Your task to perform on an android device: toggle notifications settings in the gmail app Image 0: 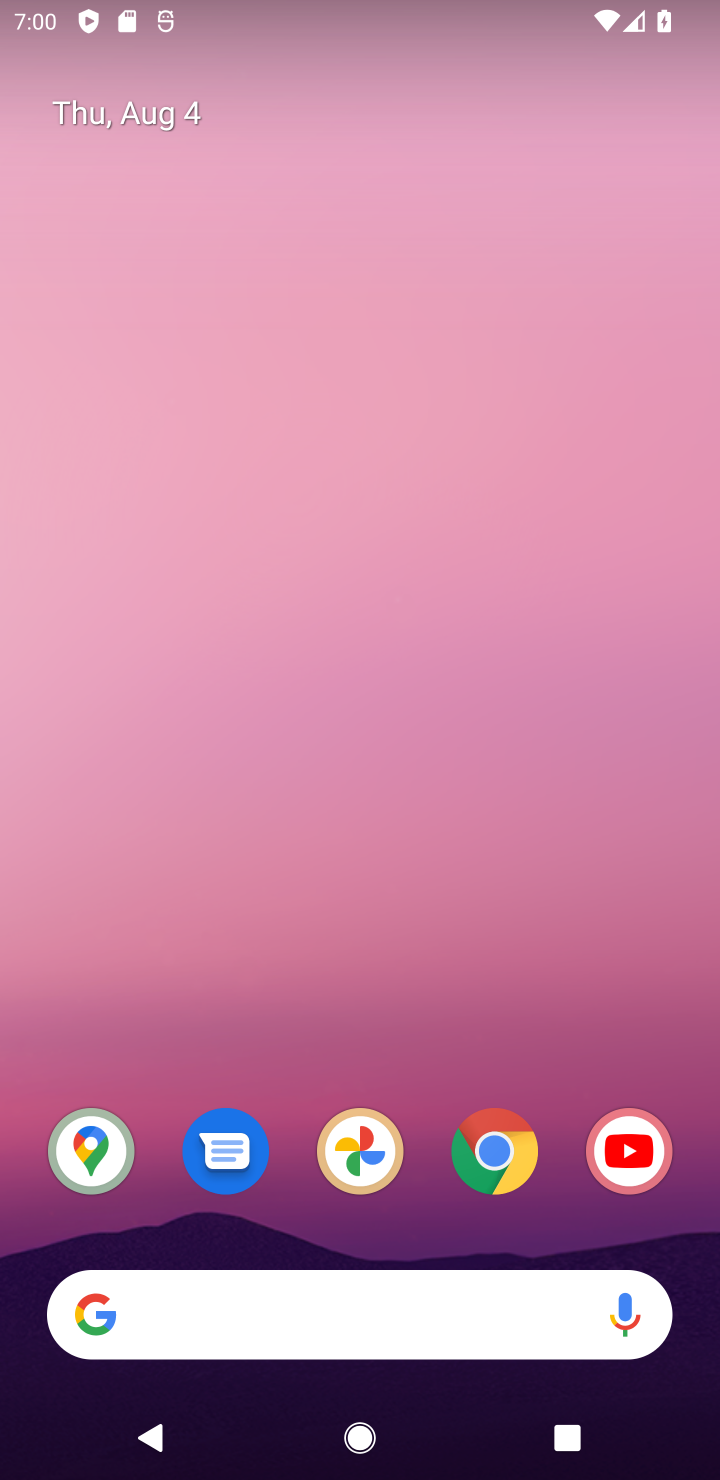
Step 0: drag from (466, 1048) to (472, 142)
Your task to perform on an android device: toggle notifications settings in the gmail app Image 1: 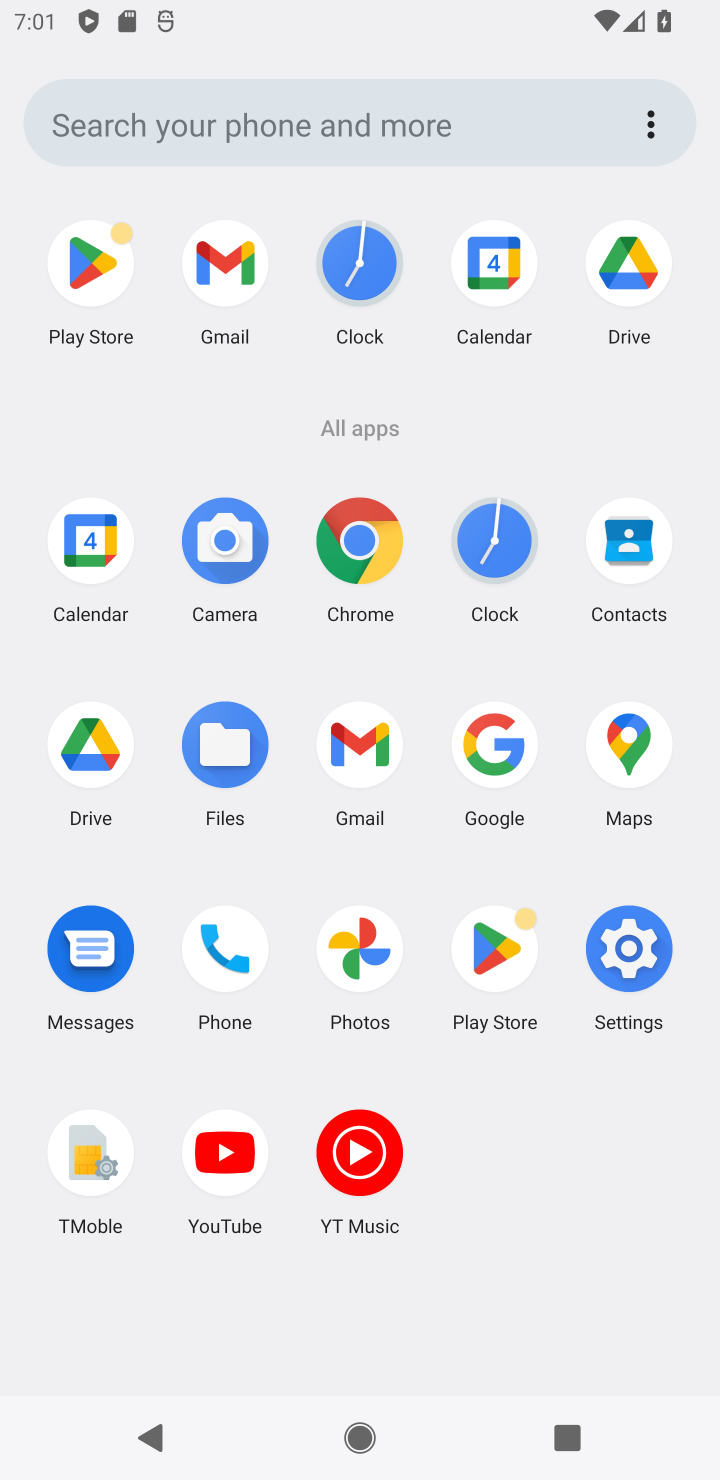
Step 1: click (225, 242)
Your task to perform on an android device: toggle notifications settings in the gmail app Image 2: 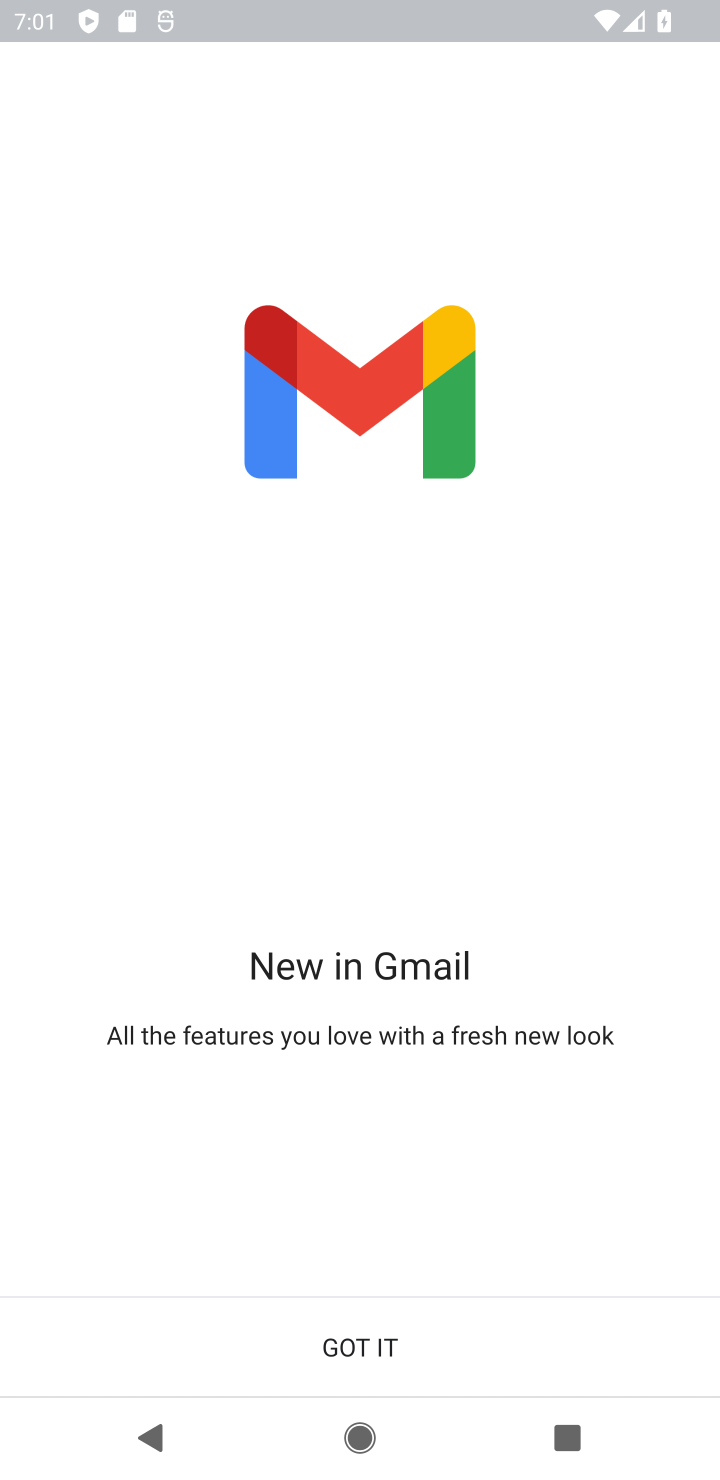
Step 2: click (388, 1340)
Your task to perform on an android device: toggle notifications settings in the gmail app Image 3: 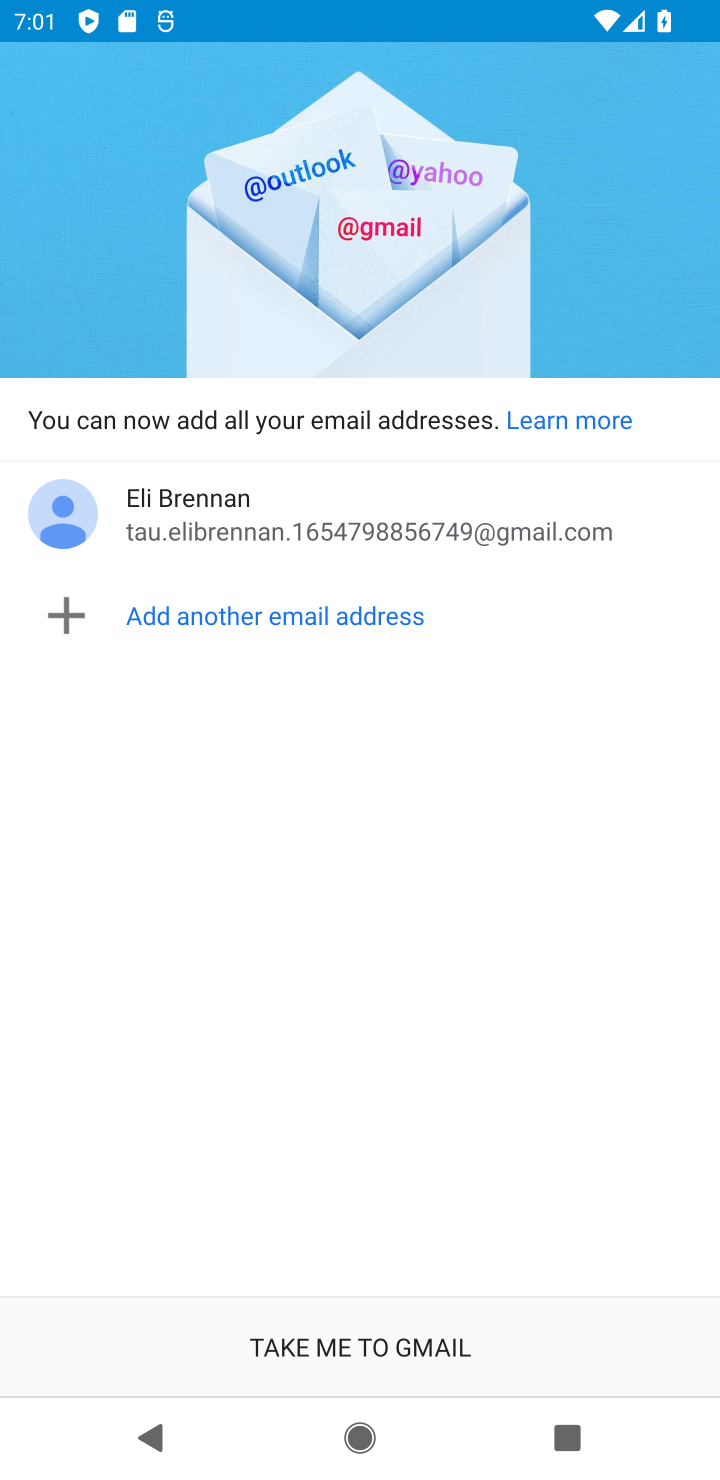
Step 3: click (509, 1337)
Your task to perform on an android device: toggle notifications settings in the gmail app Image 4: 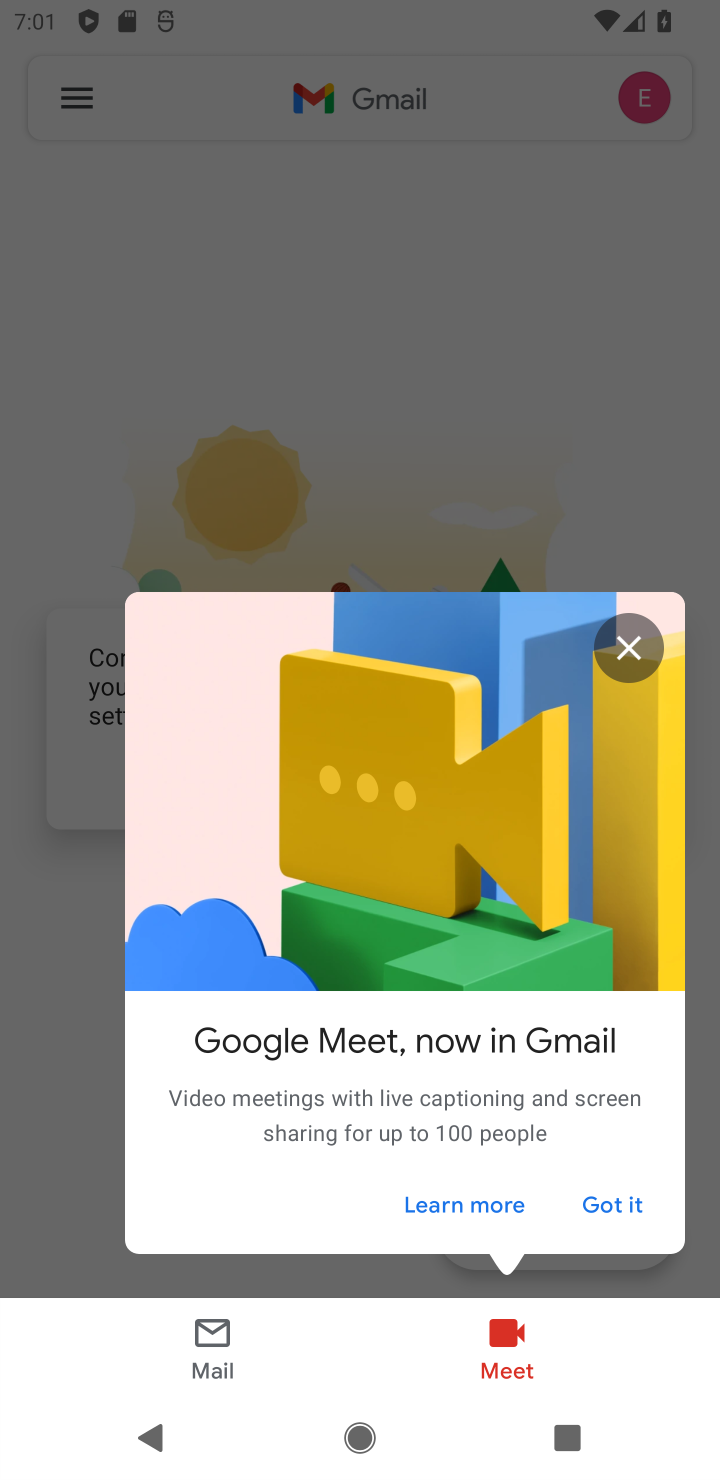
Step 4: click (620, 1198)
Your task to perform on an android device: toggle notifications settings in the gmail app Image 5: 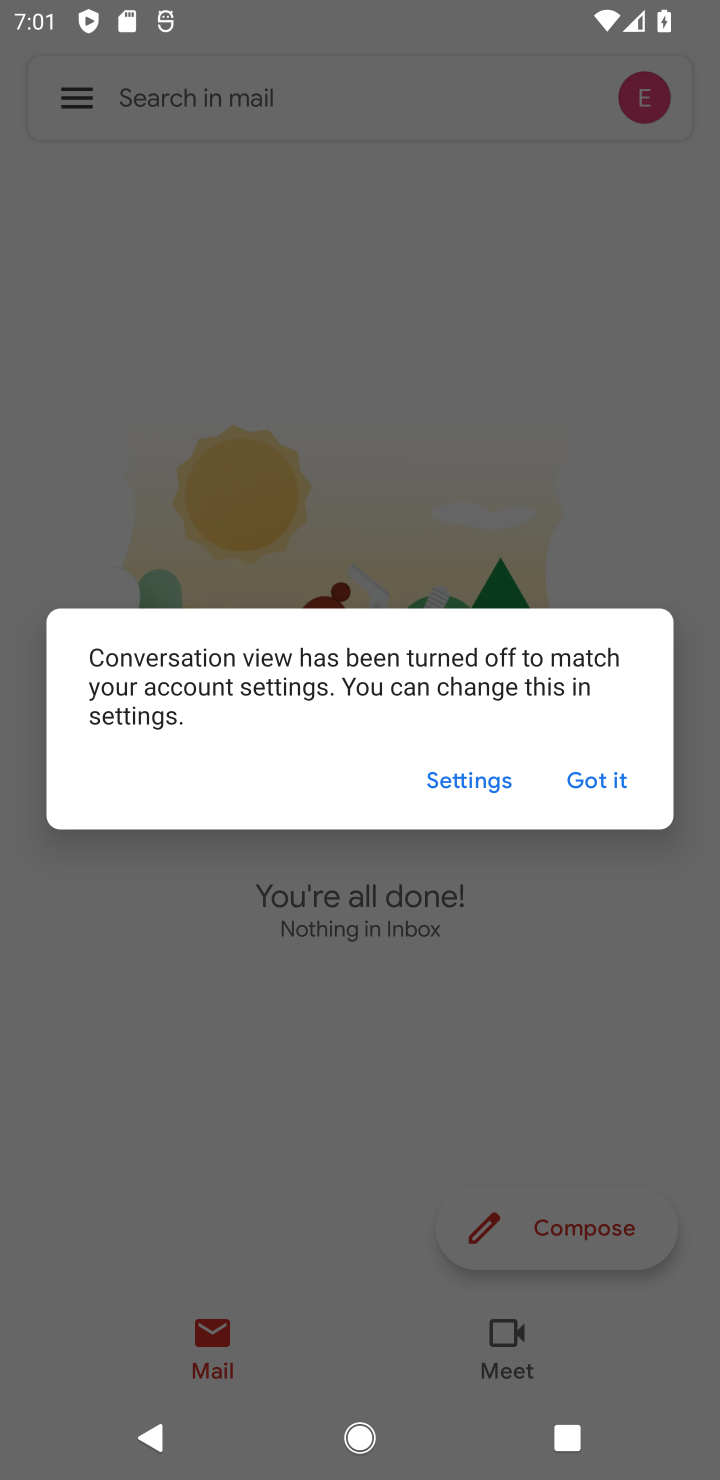
Step 5: click (602, 776)
Your task to perform on an android device: toggle notifications settings in the gmail app Image 6: 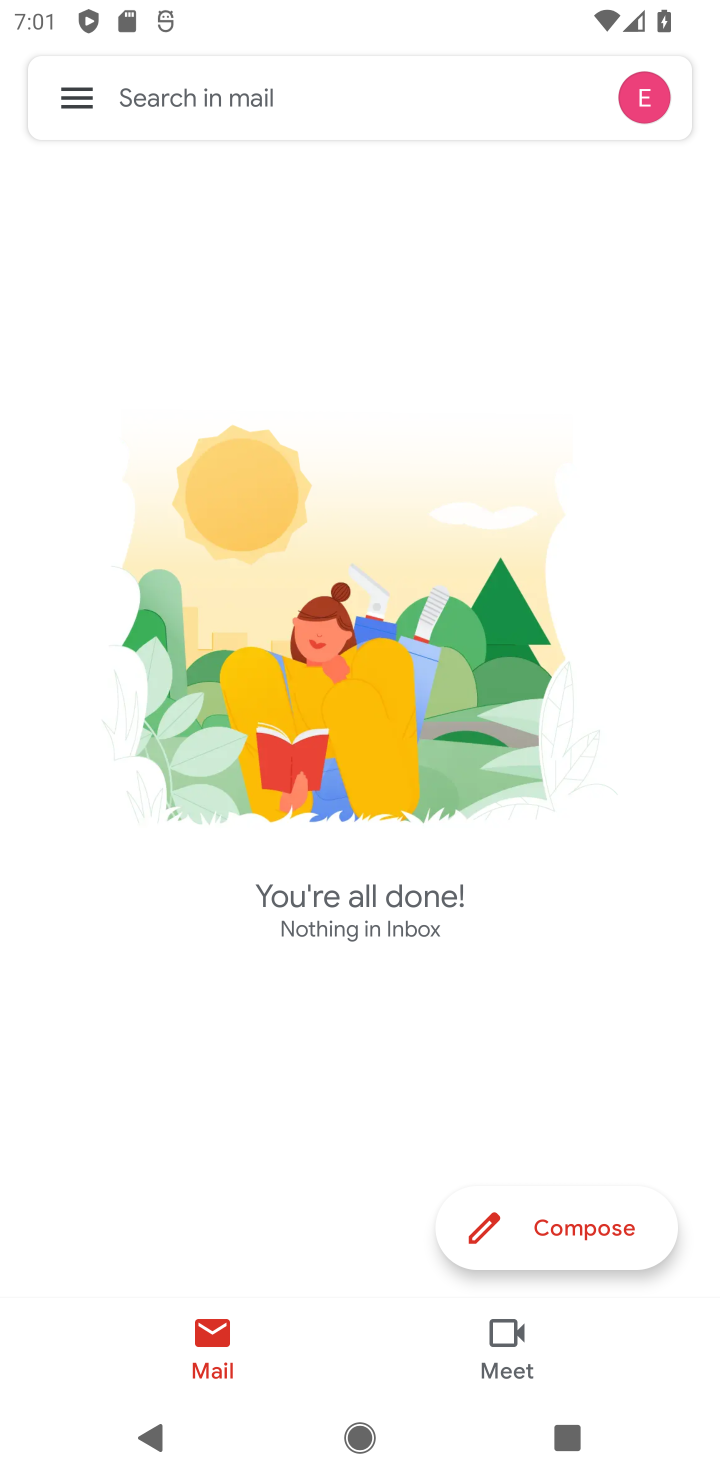
Step 6: click (83, 103)
Your task to perform on an android device: toggle notifications settings in the gmail app Image 7: 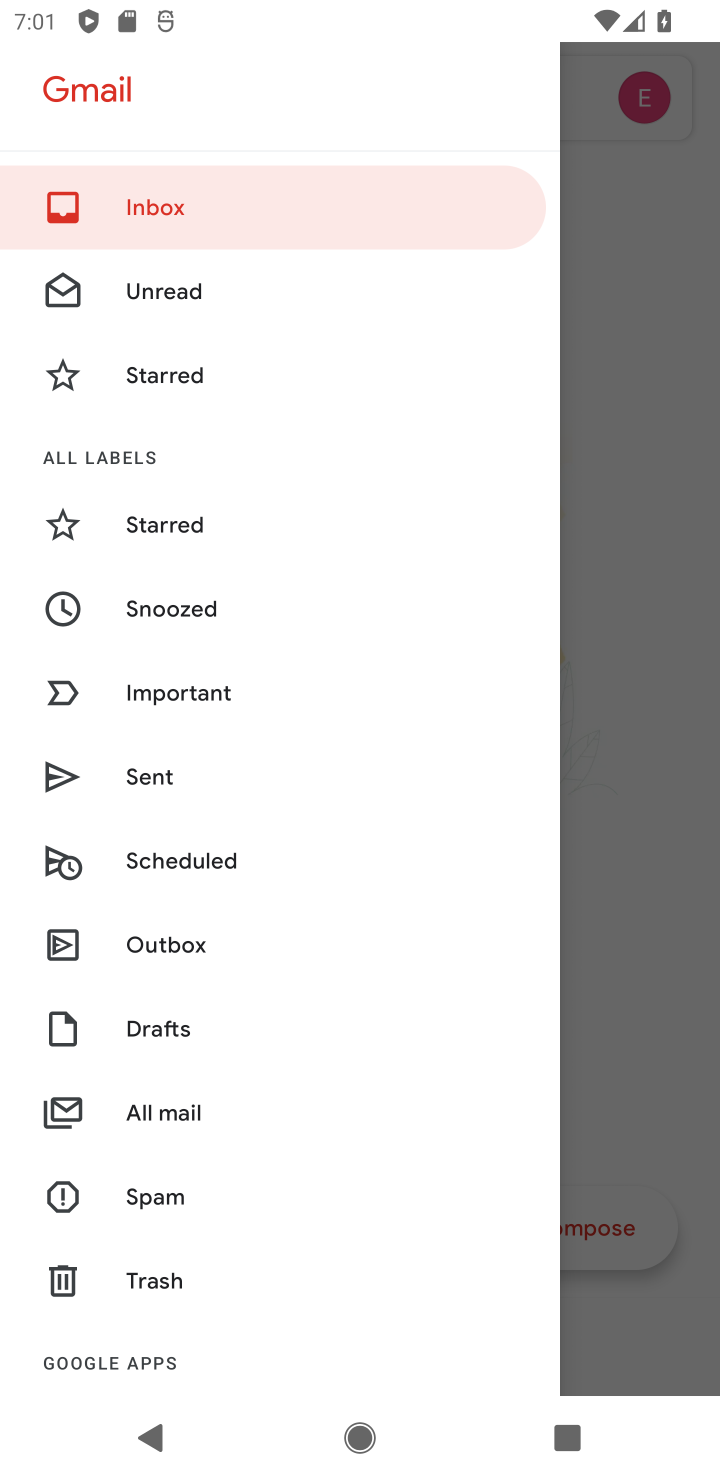
Step 7: drag from (314, 1229) to (290, 310)
Your task to perform on an android device: toggle notifications settings in the gmail app Image 8: 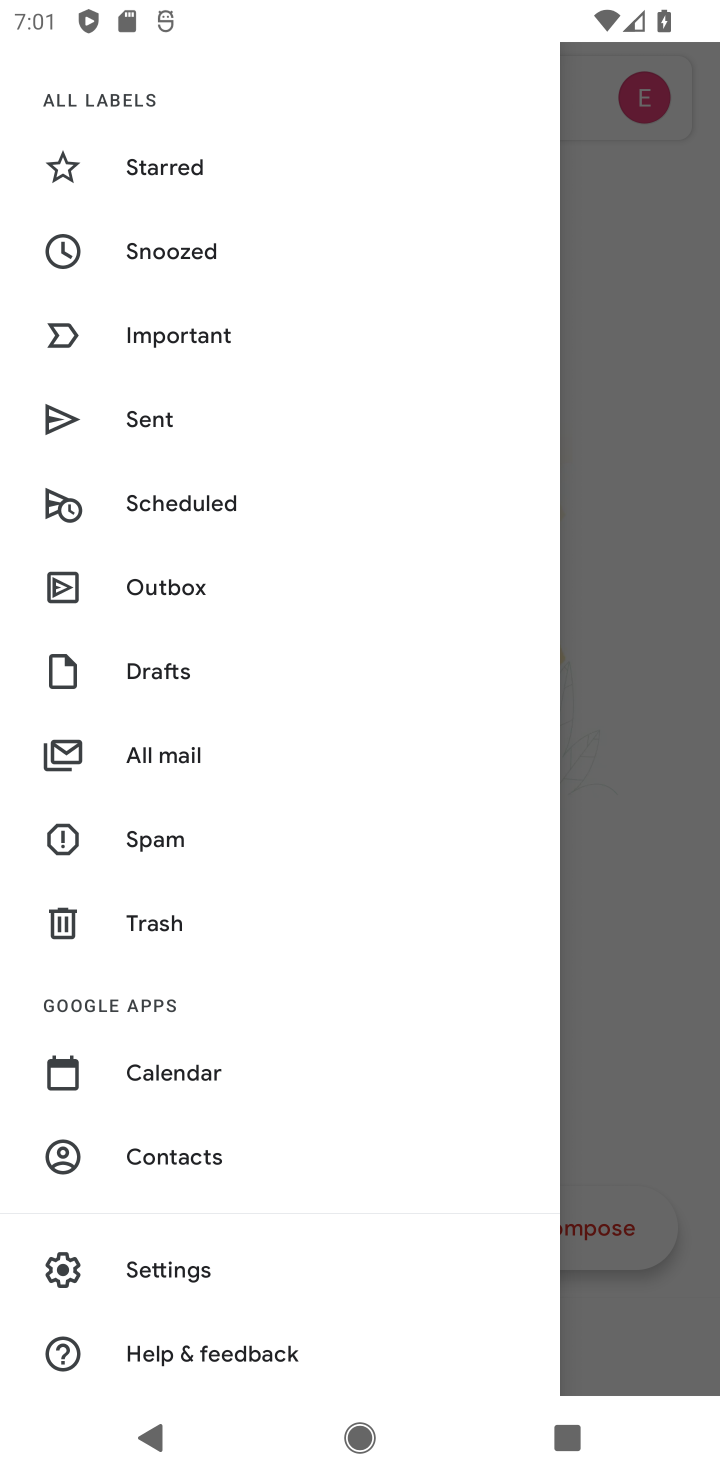
Step 8: click (193, 1265)
Your task to perform on an android device: toggle notifications settings in the gmail app Image 9: 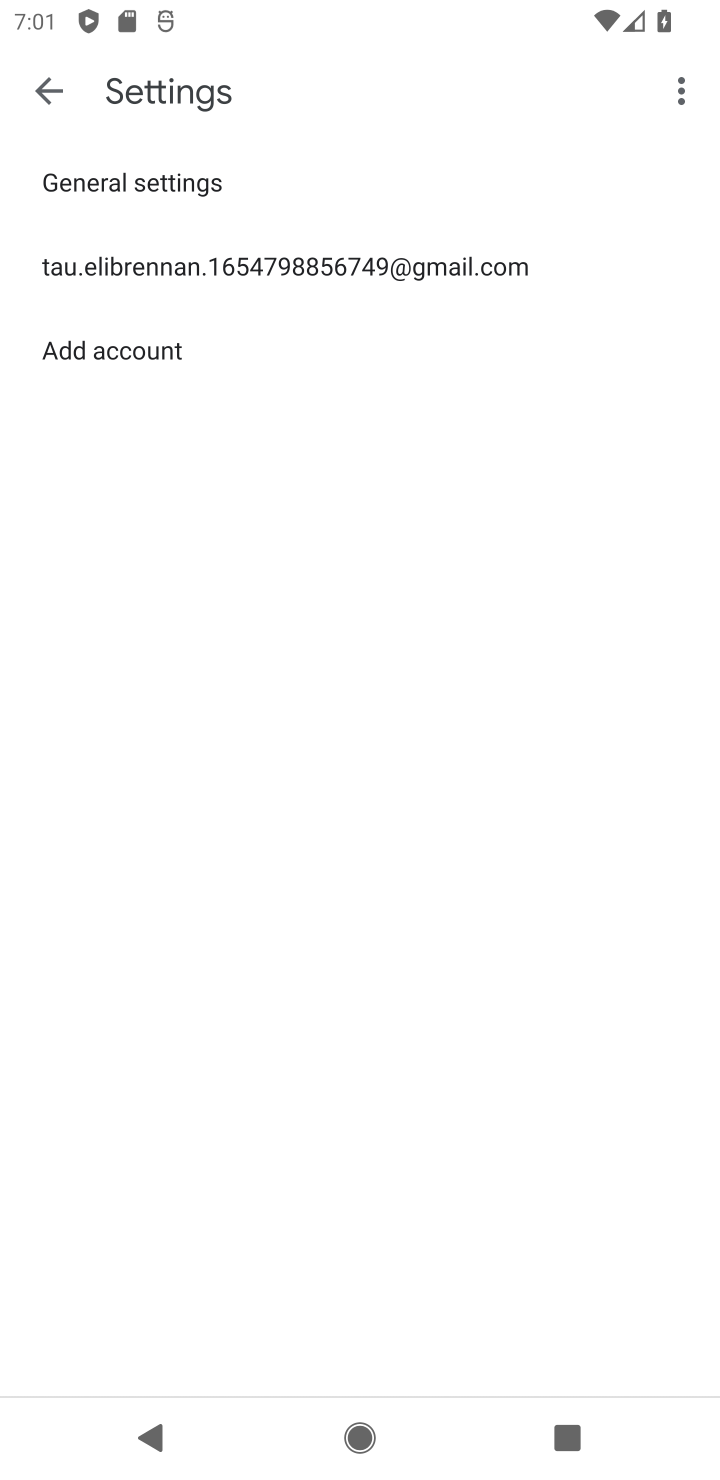
Step 9: click (498, 268)
Your task to perform on an android device: toggle notifications settings in the gmail app Image 10: 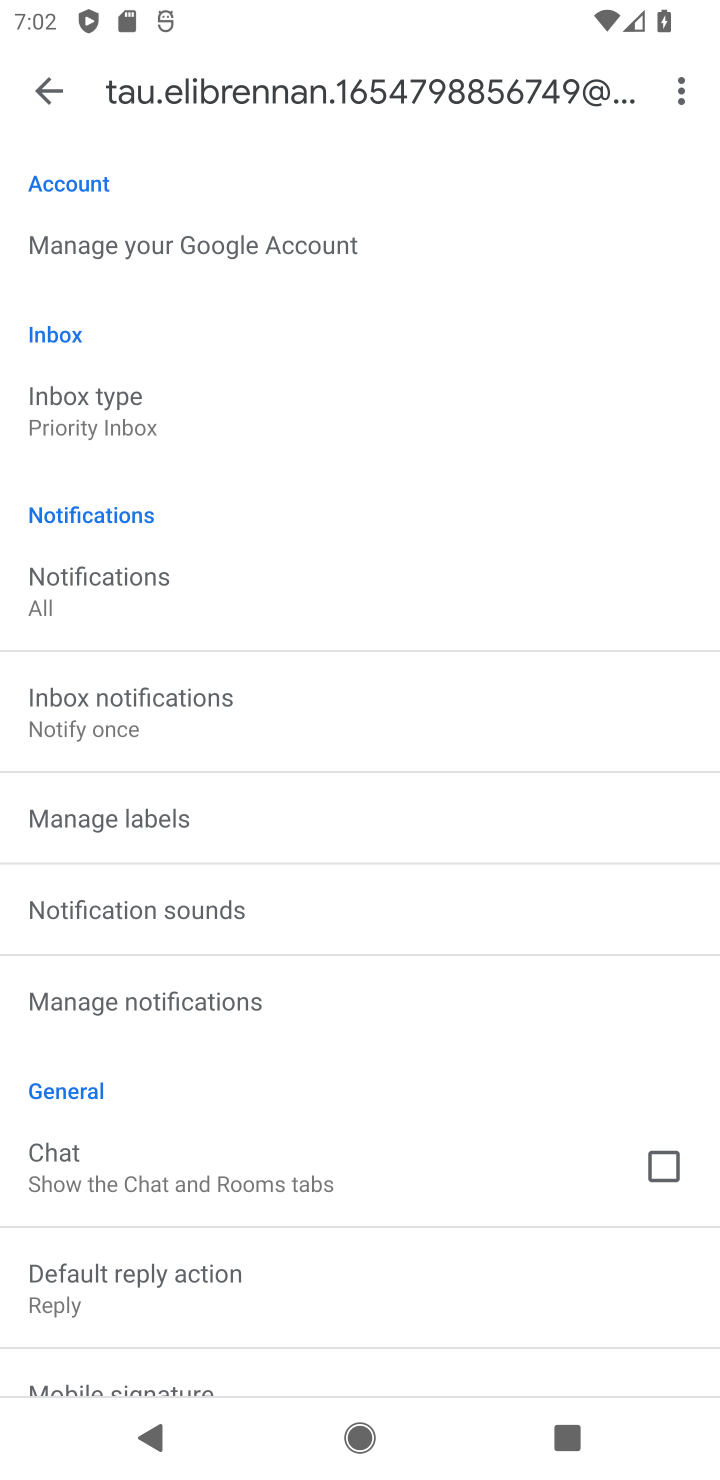
Step 10: click (346, 1003)
Your task to perform on an android device: toggle notifications settings in the gmail app Image 11: 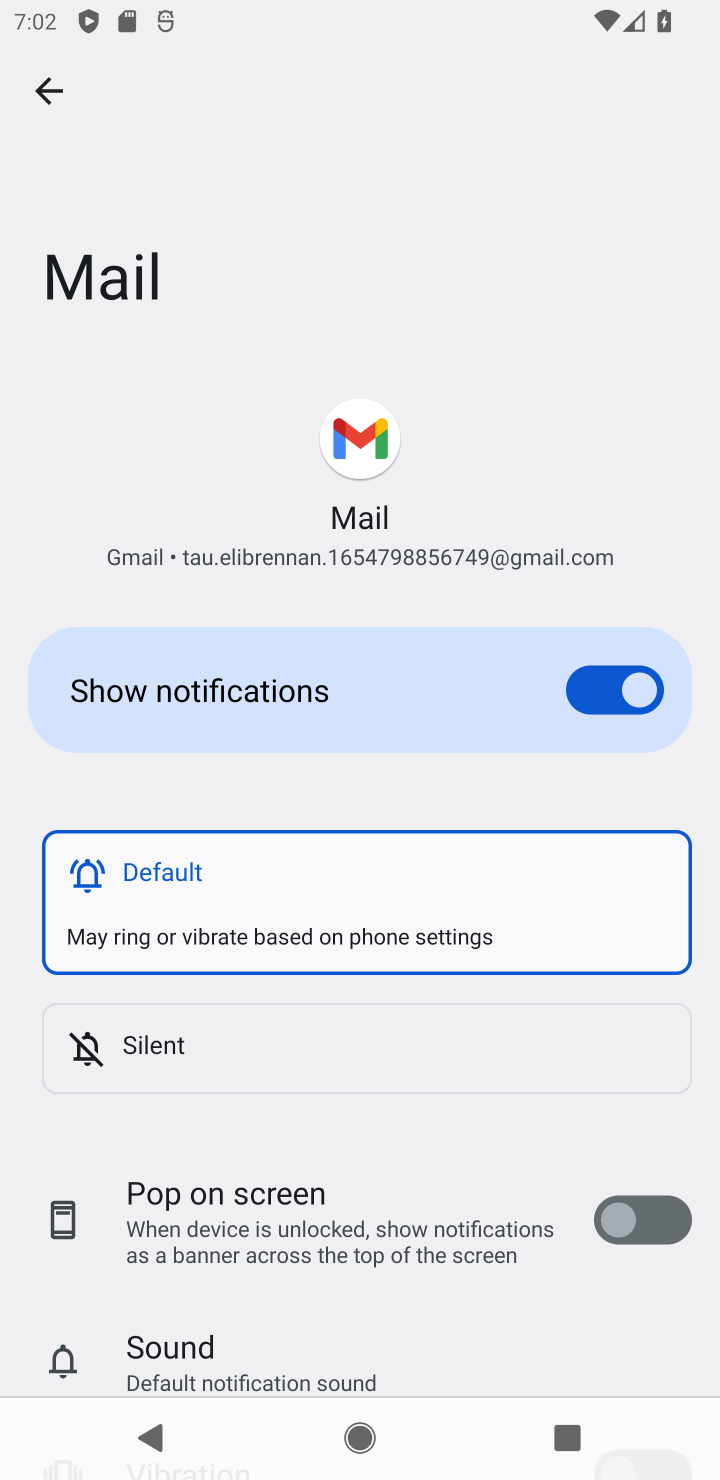
Step 11: drag from (434, 1162) to (440, 387)
Your task to perform on an android device: toggle notifications settings in the gmail app Image 12: 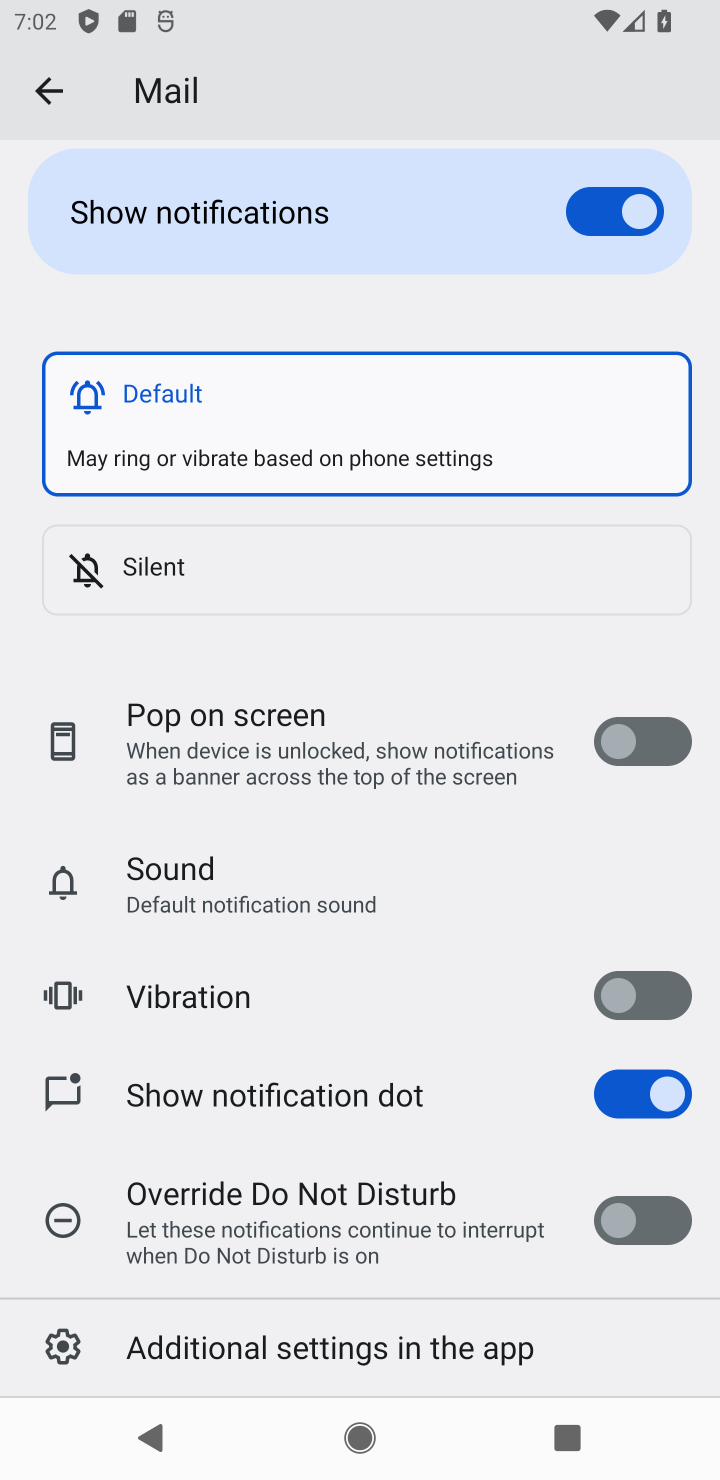
Step 12: click (668, 755)
Your task to perform on an android device: toggle notifications settings in the gmail app Image 13: 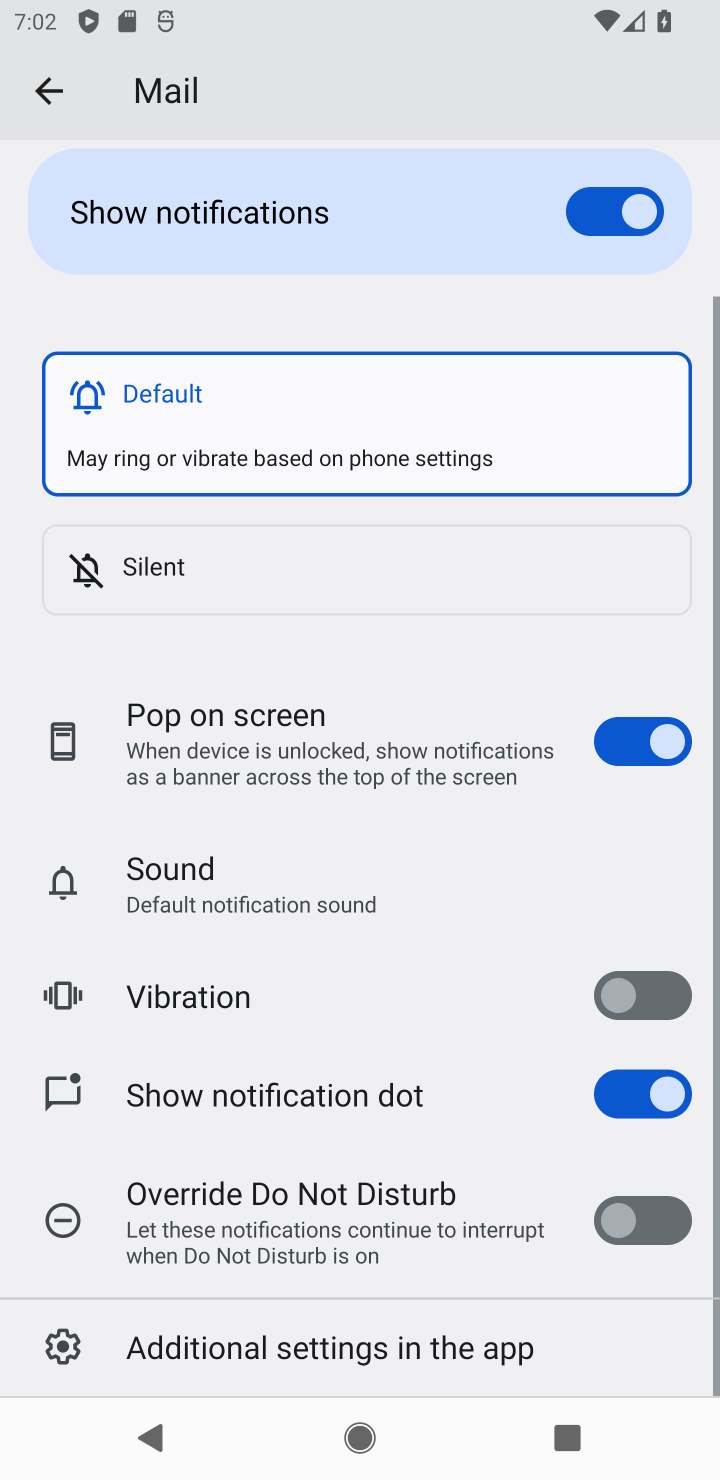
Step 13: click (666, 995)
Your task to perform on an android device: toggle notifications settings in the gmail app Image 14: 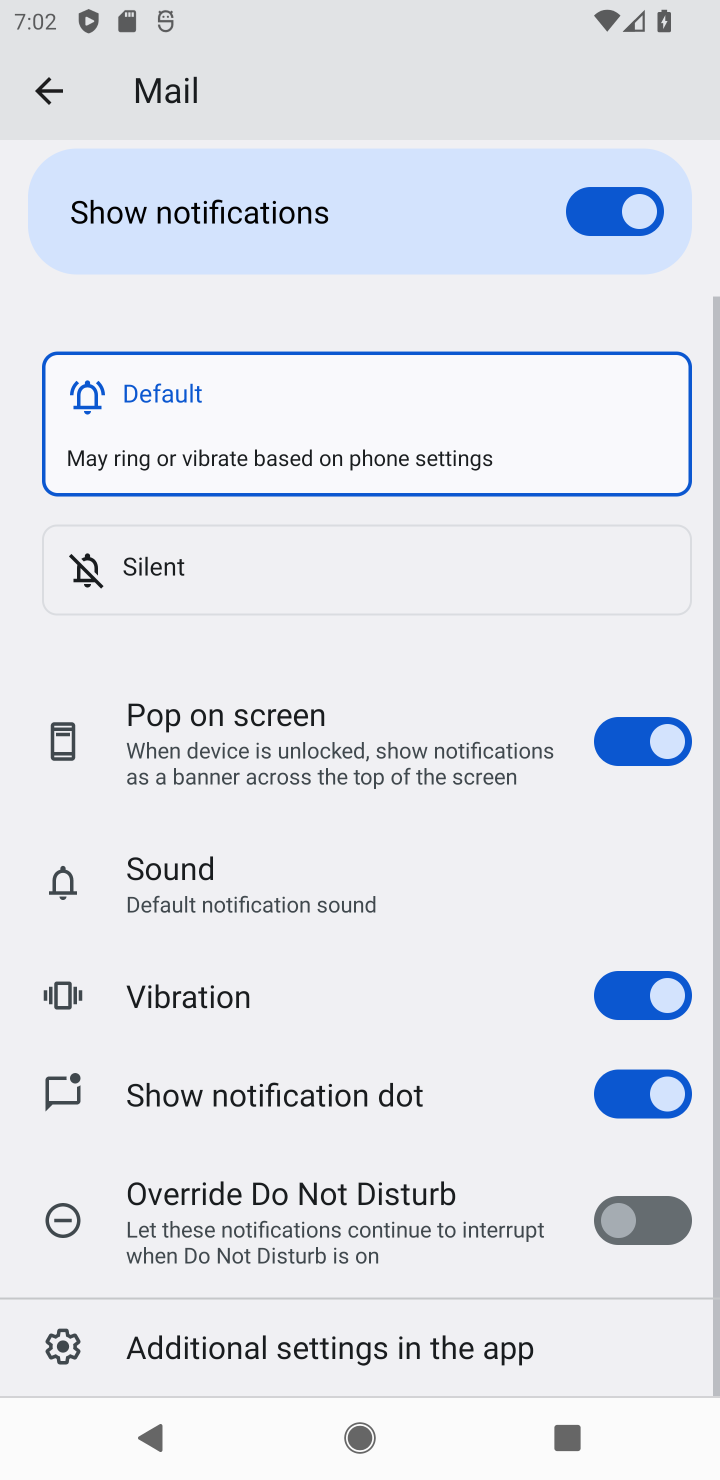
Step 14: click (623, 1087)
Your task to perform on an android device: toggle notifications settings in the gmail app Image 15: 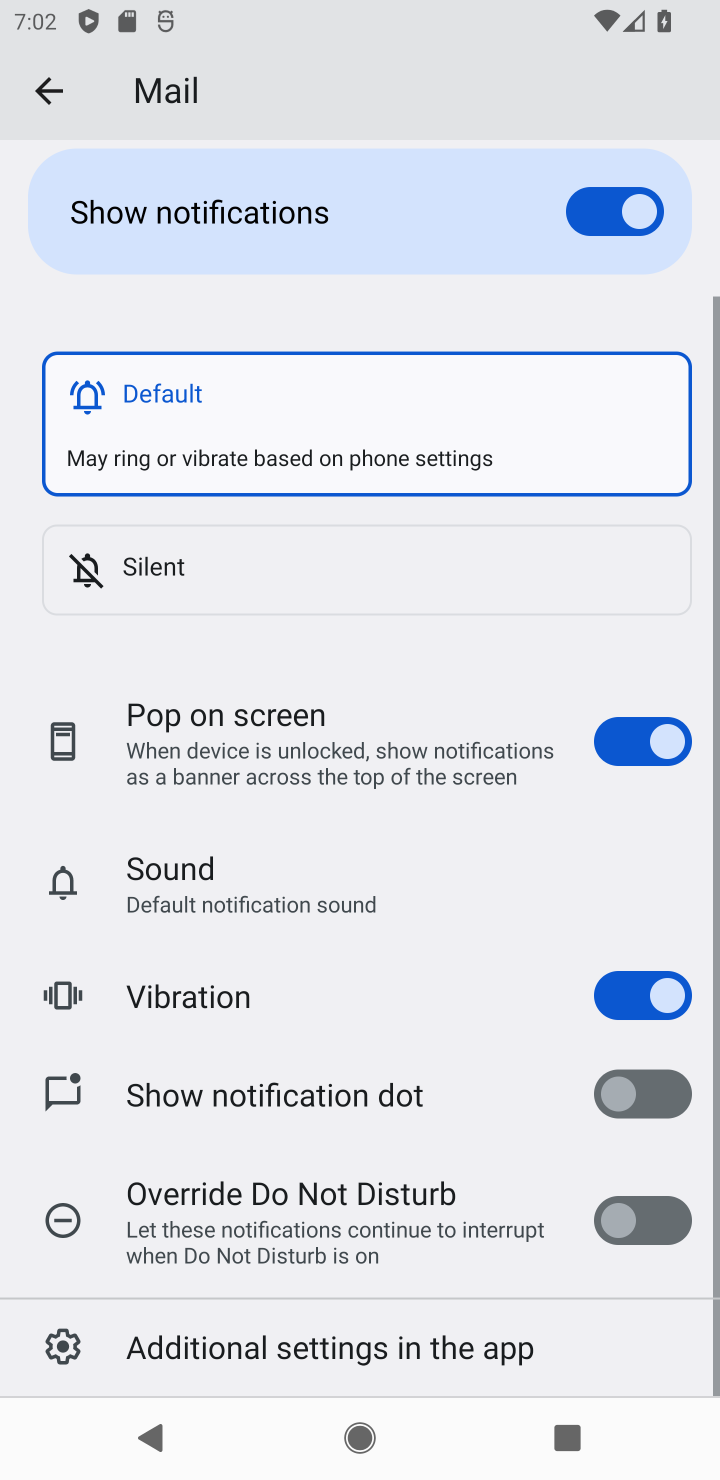
Step 15: click (675, 1249)
Your task to perform on an android device: toggle notifications settings in the gmail app Image 16: 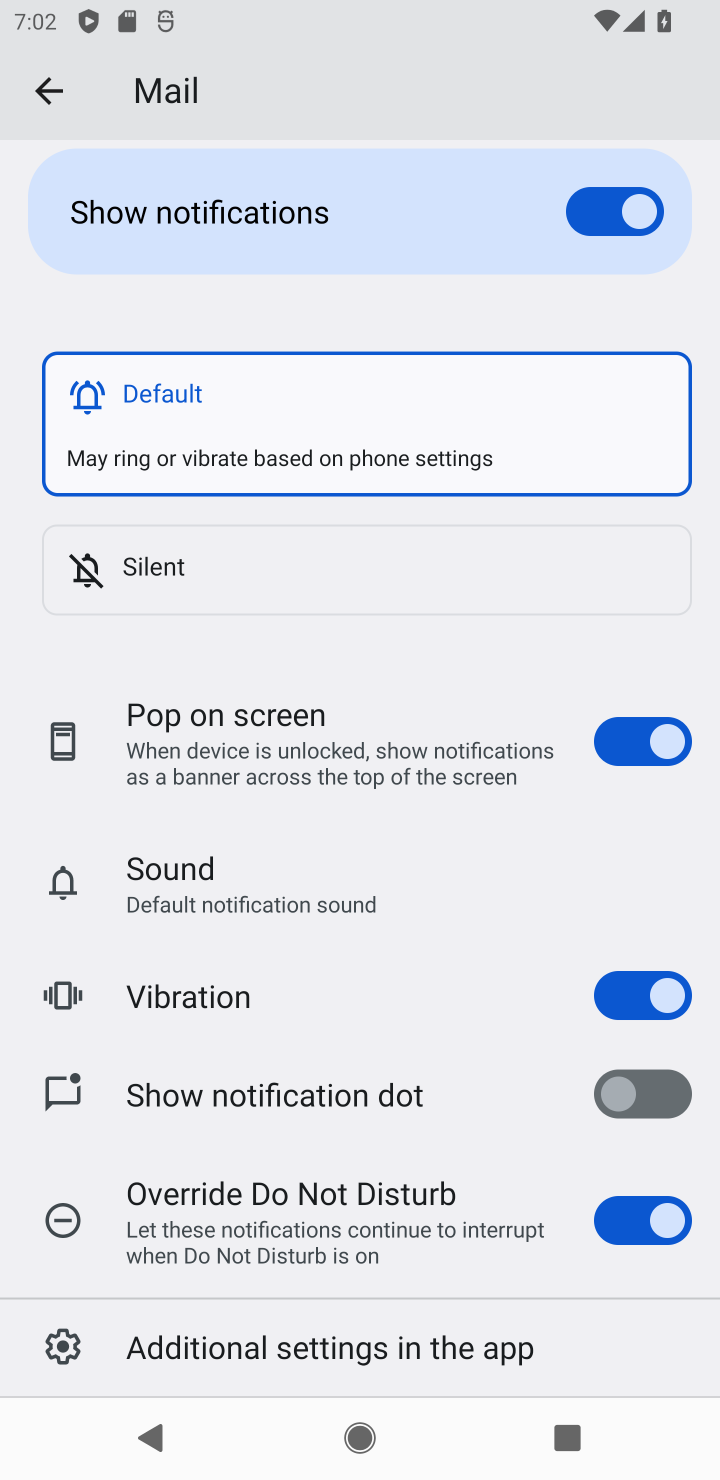
Step 16: task complete